Your task to perform on an android device: turn pop-ups off in chrome Image 0: 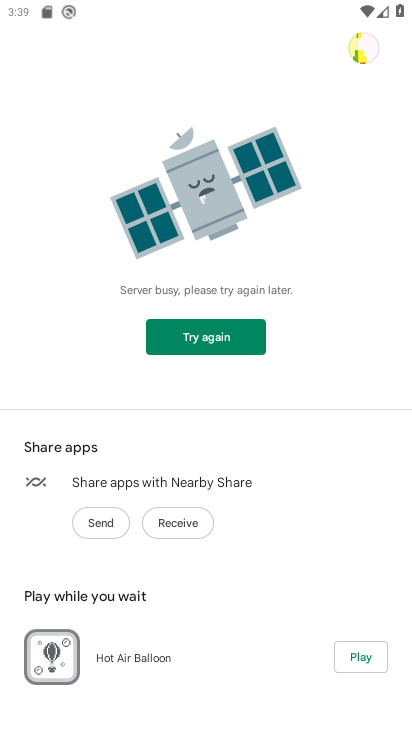
Step 0: press home button
Your task to perform on an android device: turn pop-ups off in chrome Image 1: 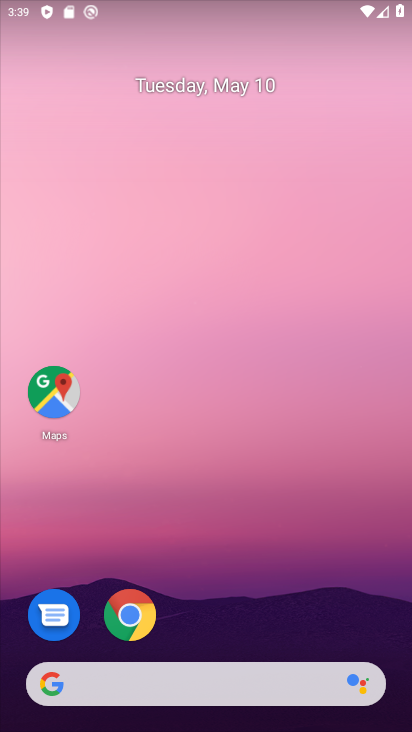
Step 1: click (131, 628)
Your task to perform on an android device: turn pop-ups off in chrome Image 2: 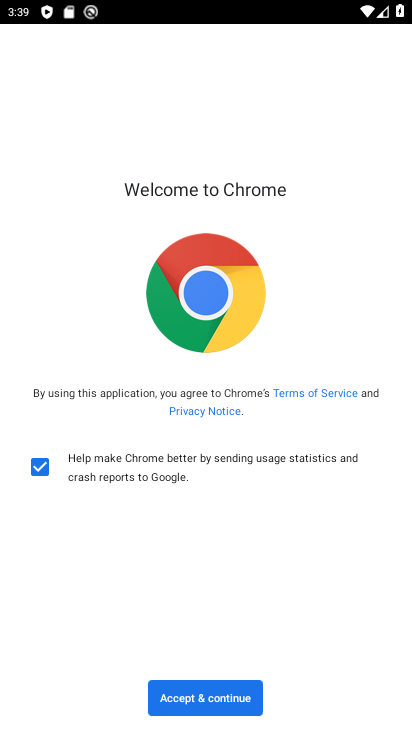
Step 2: click (195, 691)
Your task to perform on an android device: turn pop-ups off in chrome Image 3: 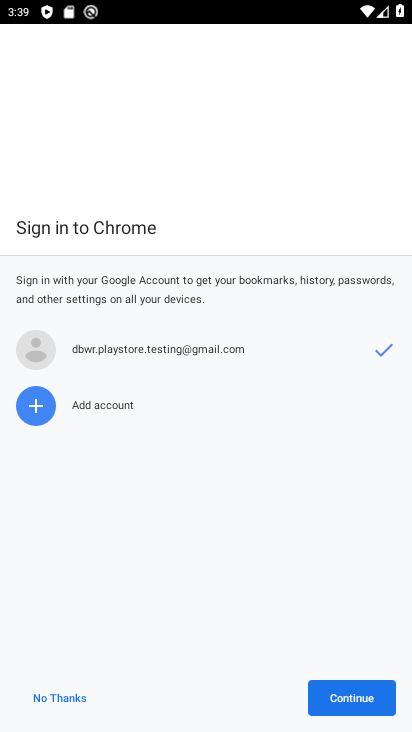
Step 3: click (357, 701)
Your task to perform on an android device: turn pop-ups off in chrome Image 4: 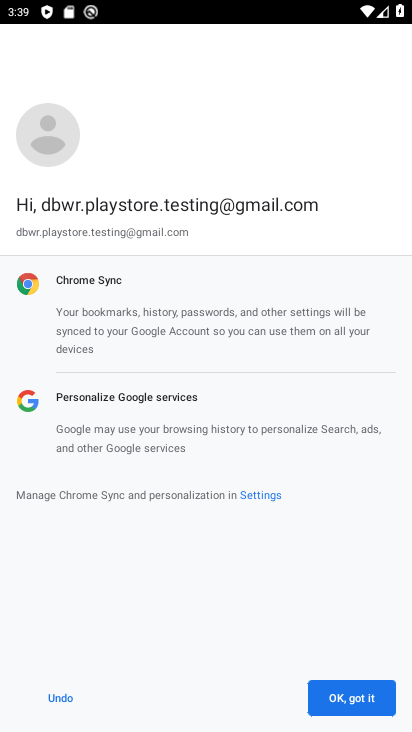
Step 4: click (357, 698)
Your task to perform on an android device: turn pop-ups off in chrome Image 5: 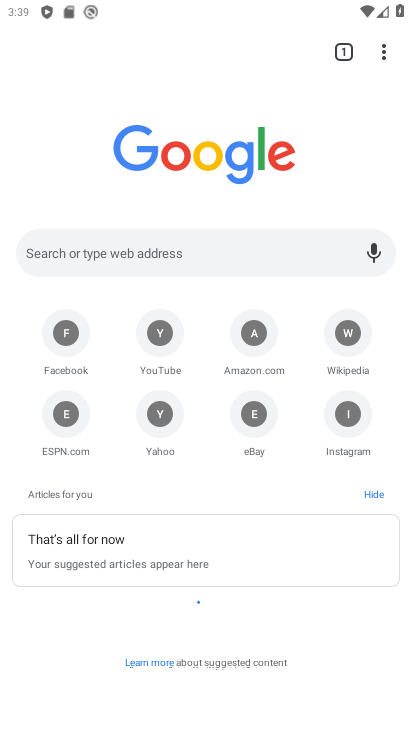
Step 5: drag from (383, 53) to (248, 441)
Your task to perform on an android device: turn pop-ups off in chrome Image 6: 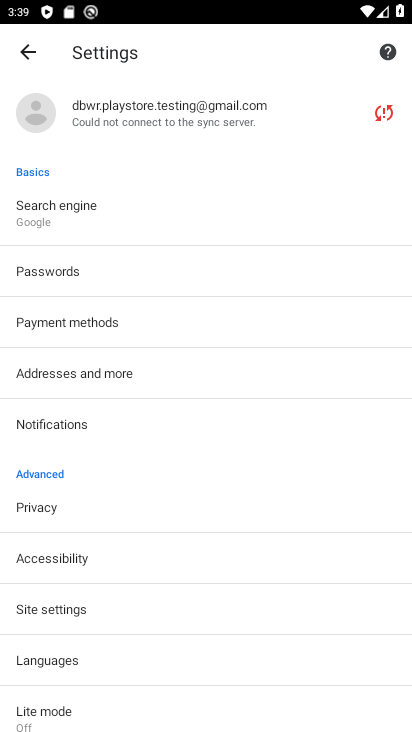
Step 6: click (68, 611)
Your task to perform on an android device: turn pop-ups off in chrome Image 7: 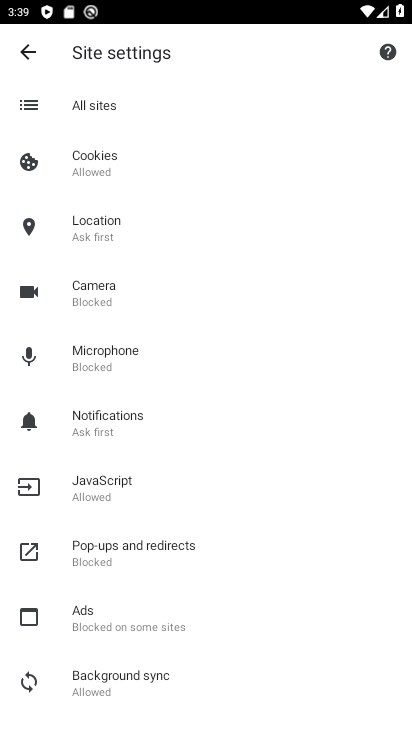
Step 7: click (162, 558)
Your task to perform on an android device: turn pop-ups off in chrome Image 8: 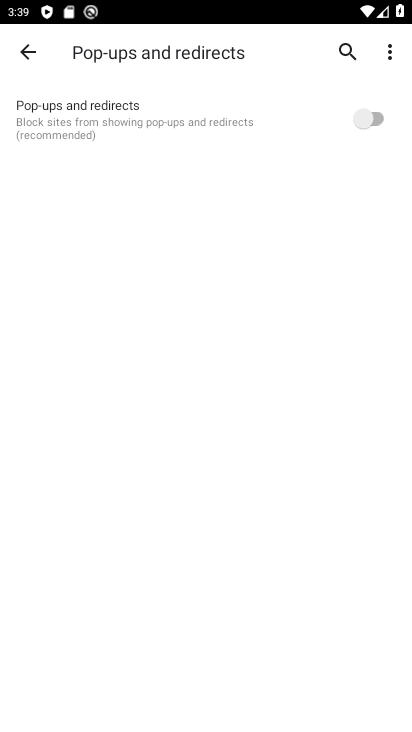
Step 8: task complete